Your task to perform on an android device: turn on bluetooth scan Image 0: 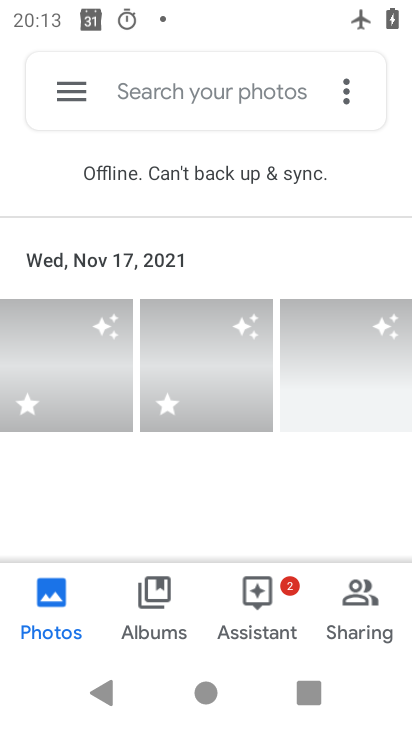
Step 0: press home button
Your task to perform on an android device: turn on bluetooth scan Image 1: 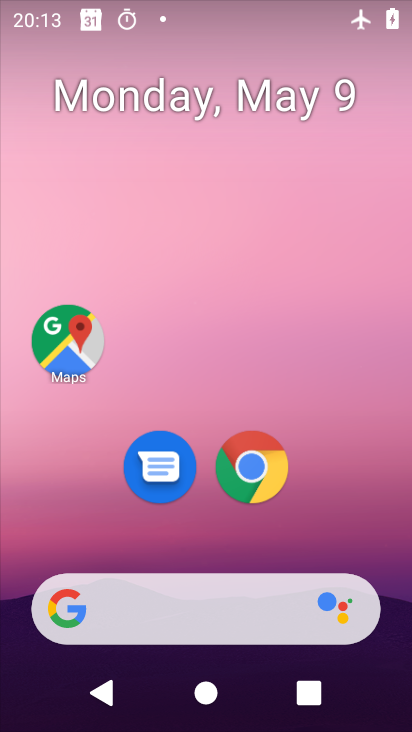
Step 1: drag from (345, 492) to (164, 72)
Your task to perform on an android device: turn on bluetooth scan Image 2: 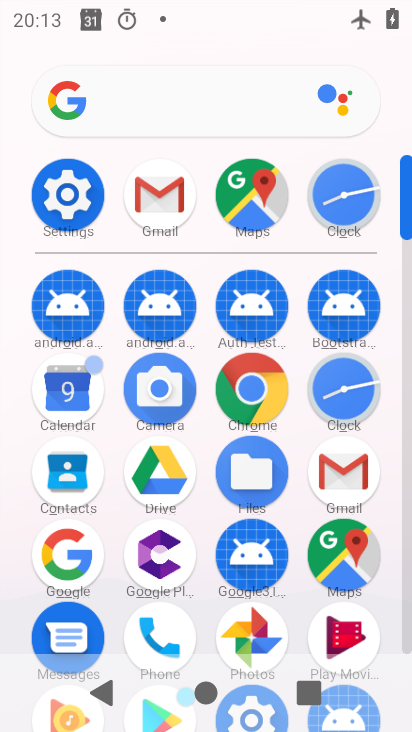
Step 2: click (67, 179)
Your task to perform on an android device: turn on bluetooth scan Image 3: 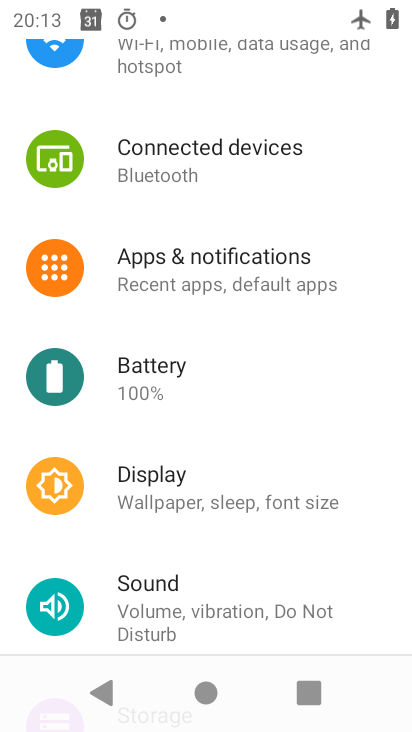
Step 3: drag from (239, 439) to (182, 58)
Your task to perform on an android device: turn on bluetooth scan Image 4: 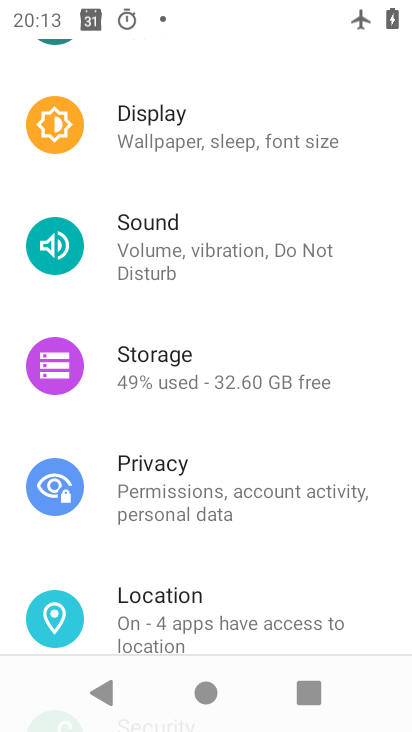
Step 4: click (161, 604)
Your task to perform on an android device: turn on bluetooth scan Image 5: 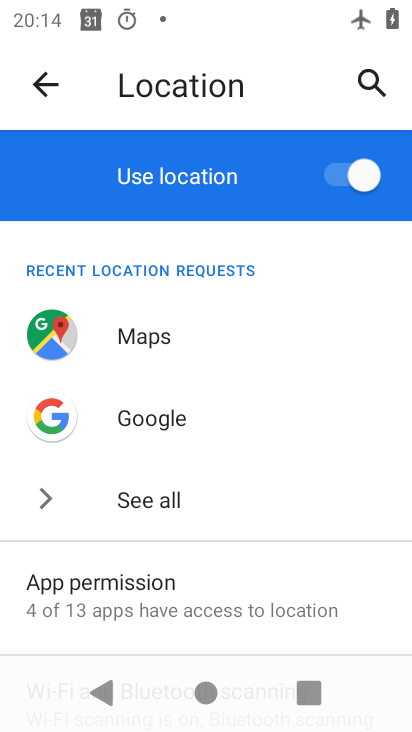
Step 5: drag from (204, 590) to (227, 147)
Your task to perform on an android device: turn on bluetooth scan Image 6: 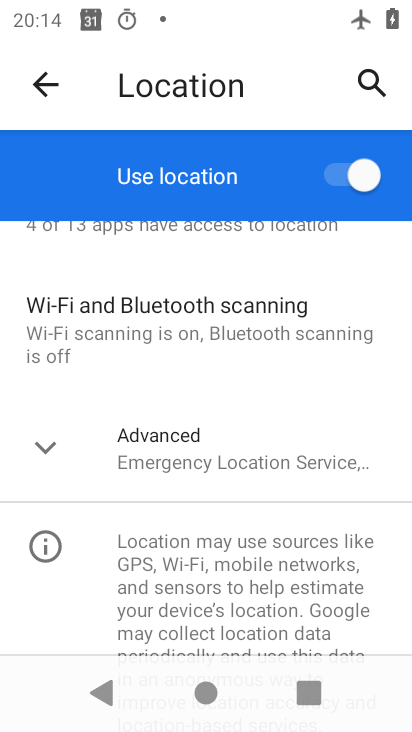
Step 6: click (170, 439)
Your task to perform on an android device: turn on bluetooth scan Image 7: 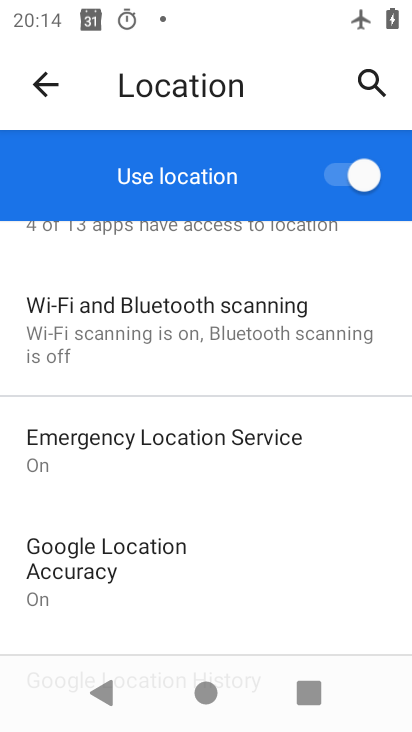
Step 7: drag from (236, 315) to (284, 78)
Your task to perform on an android device: turn on bluetooth scan Image 8: 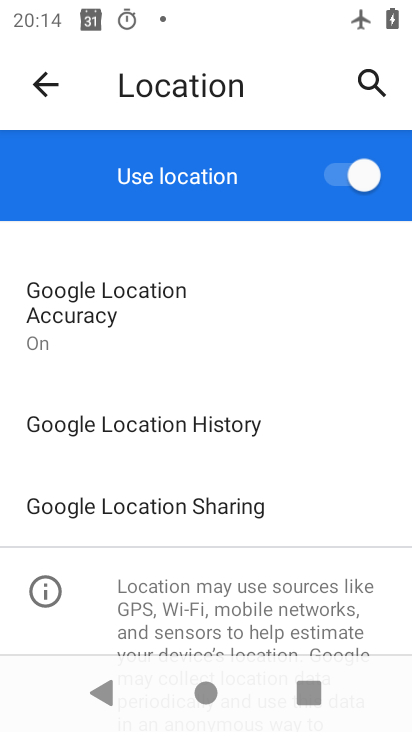
Step 8: drag from (248, 496) to (234, 728)
Your task to perform on an android device: turn on bluetooth scan Image 9: 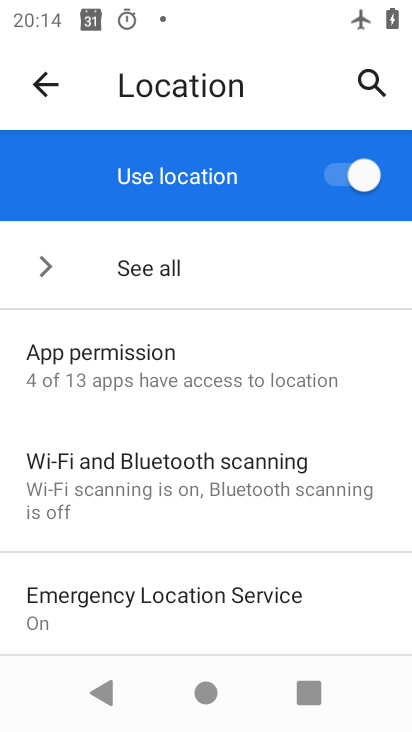
Step 9: click (210, 485)
Your task to perform on an android device: turn on bluetooth scan Image 10: 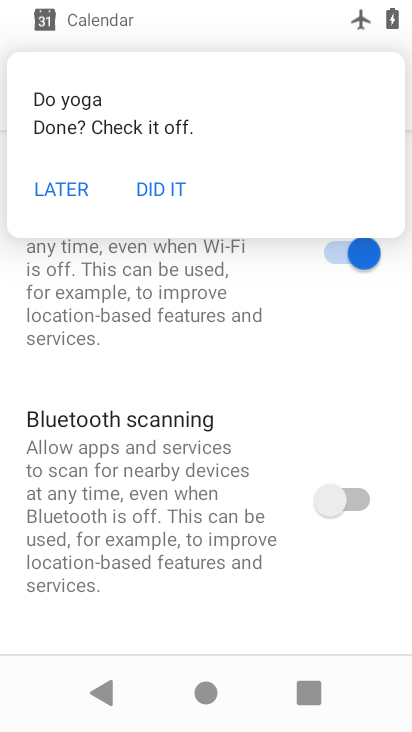
Step 10: click (341, 516)
Your task to perform on an android device: turn on bluetooth scan Image 11: 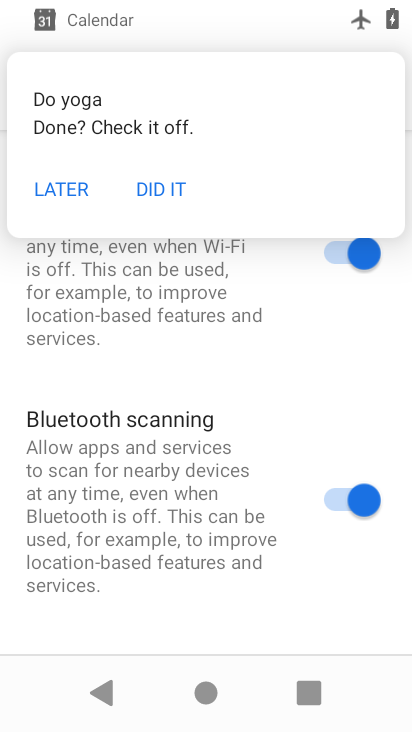
Step 11: task complete